Your task to perform on an android device: When is my next appointment? Image 0: 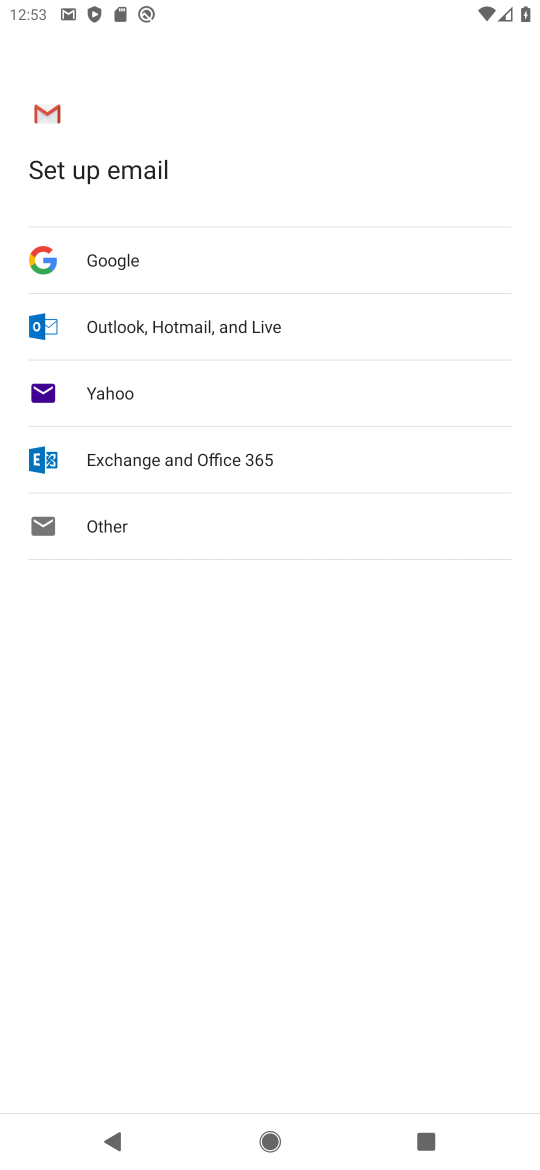
Step 0: press home button
Your task to perform on an android device: When is my next appointment? Image 1: 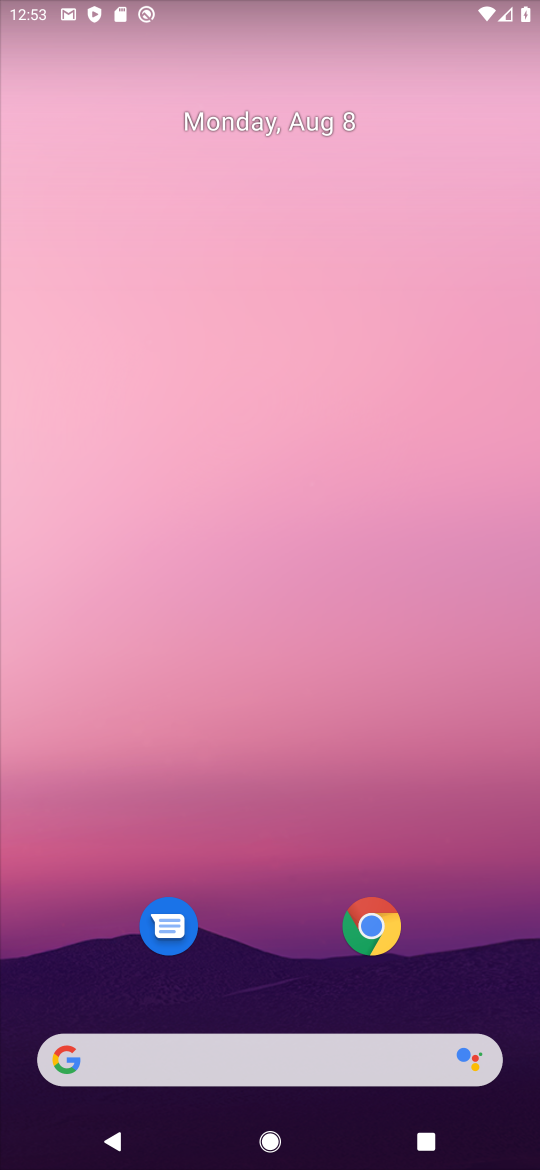
Step 1: click (267, 406)
Your task to perform on an android device: When is my next appointment? Image 2: 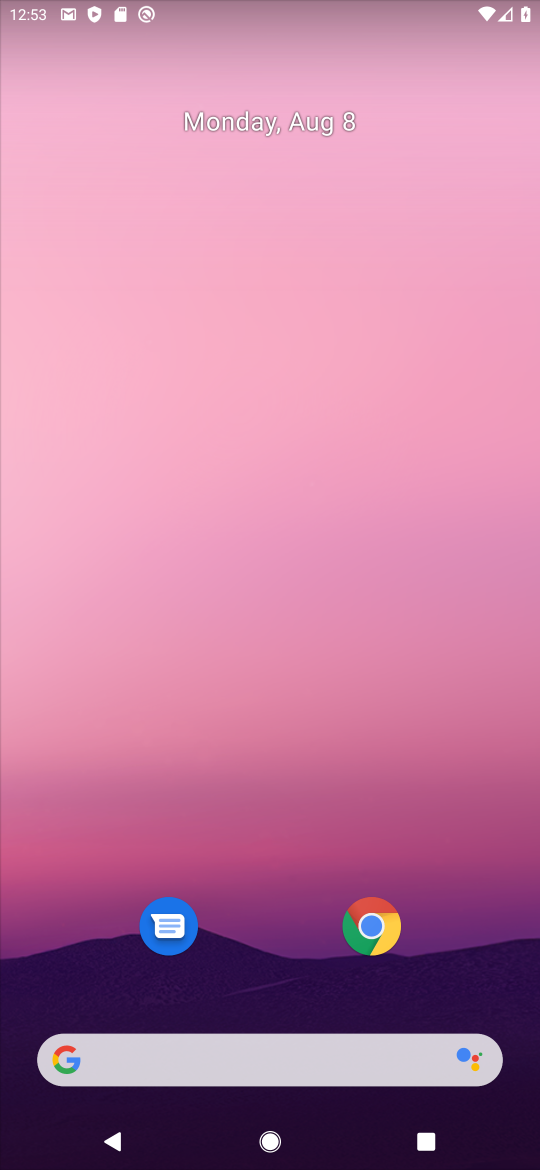
Step 2: click (283, 759)
Your task to perform on an android device: When is my next appointment? Image 3: 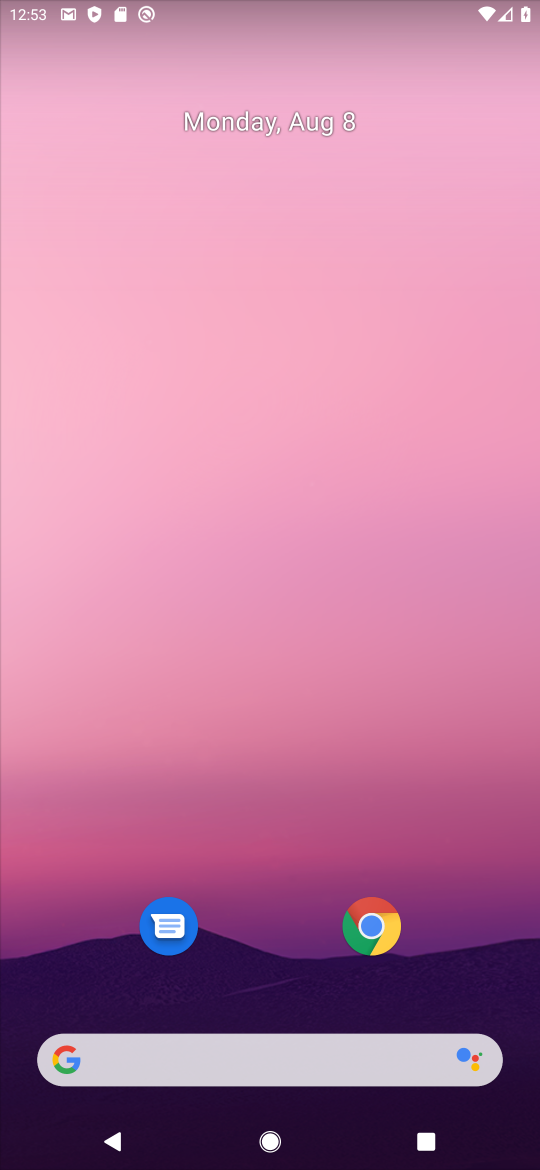
Step 3: drag from (252, 1073) to (229, 903)
Your task to perform on an android device: When is my next appointment? Image 4: 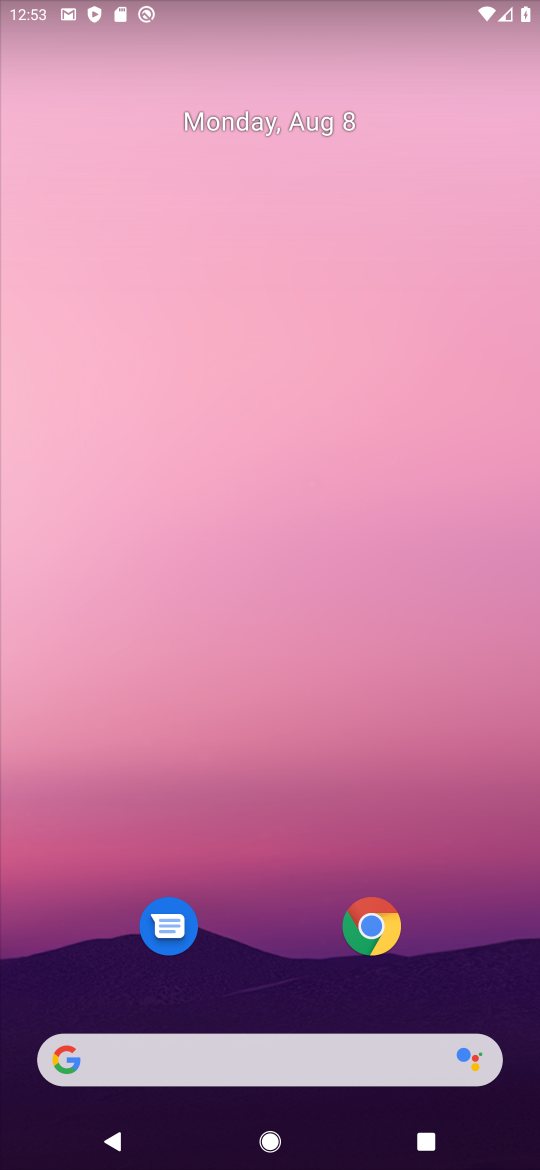
Step 4: drag from (245, 795) to (373, 70)
Your task to perform on an android device: When is my next appointment? Image 5: 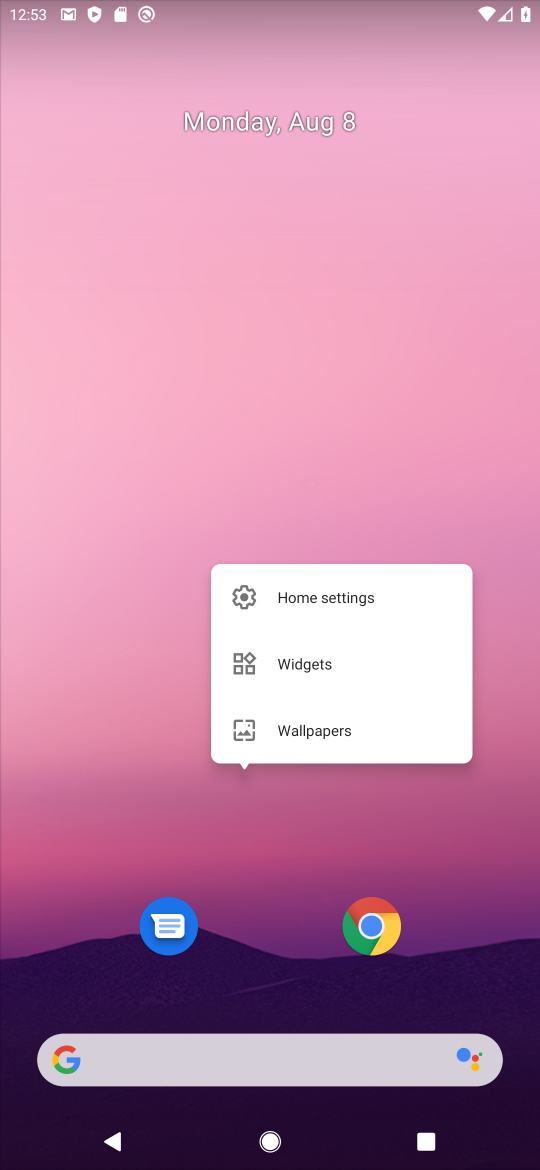
Step 5: click (275, 920)
Your task to perform on an android device: When is my next appointment? Image 6: 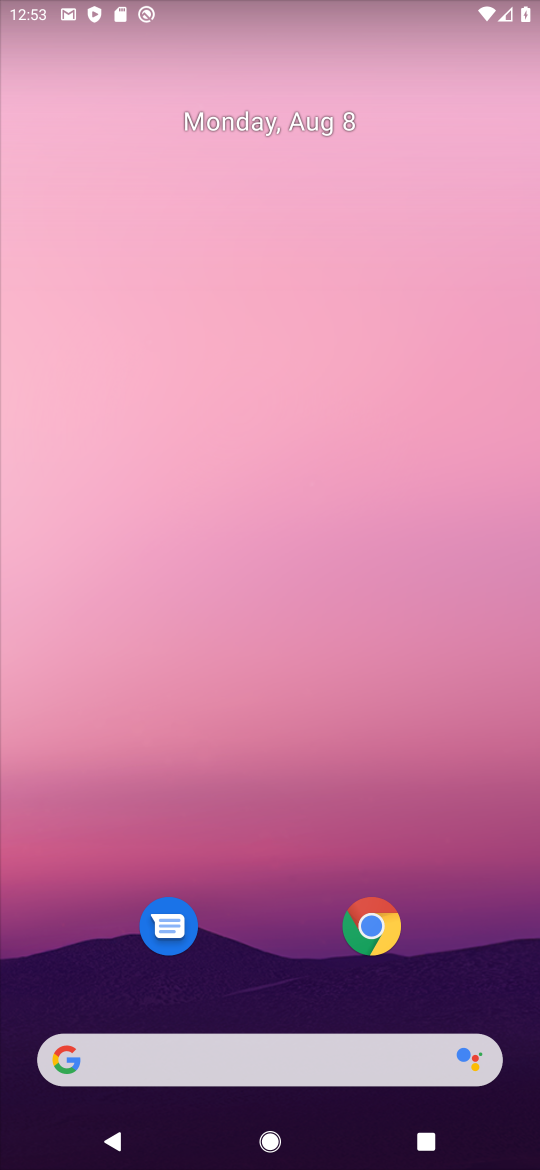
Step 6: drag from (303, 802) to (358, 6)
Your task to perform on an android device: When is my next appointment? Image 7: 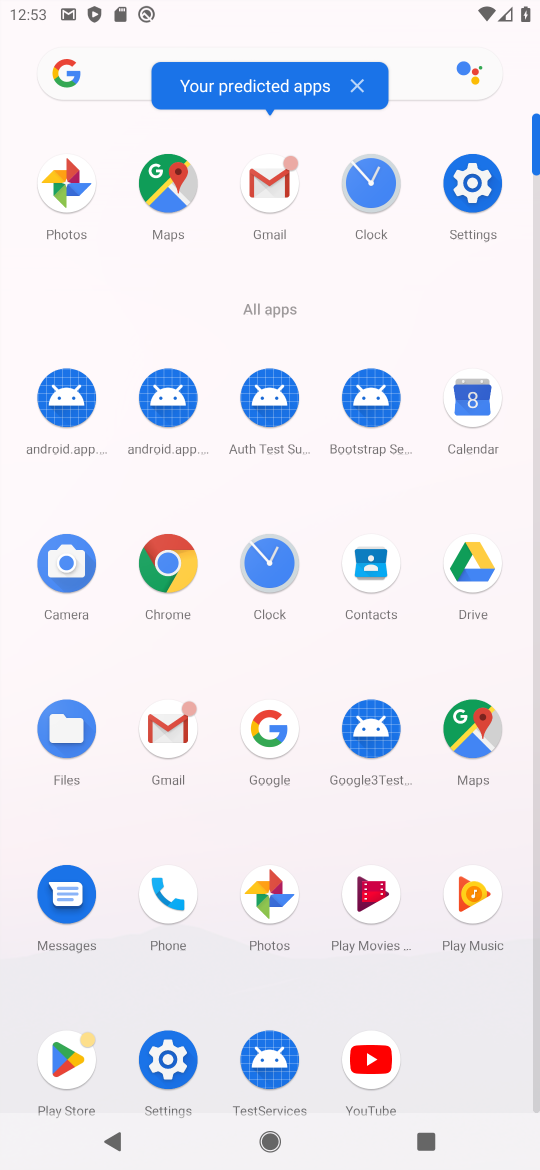
Step 7: click (484, 389)
Your task to perform on an android device: When is my next appointment? Image 8: 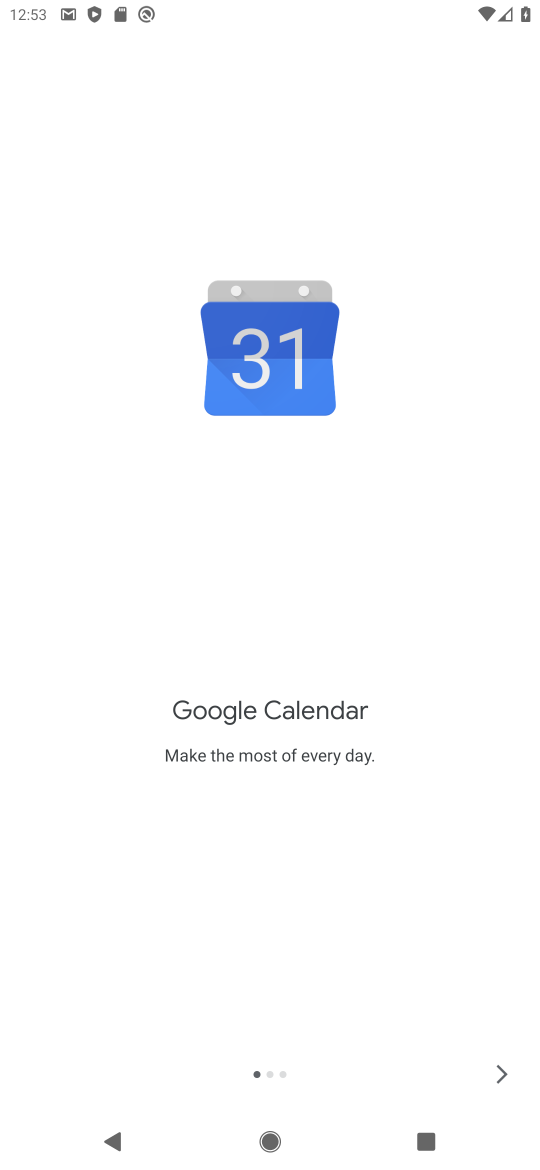
Step 8: click (493, 1051)
Your task to perform on an android device: When is my next appointment? Image 9: 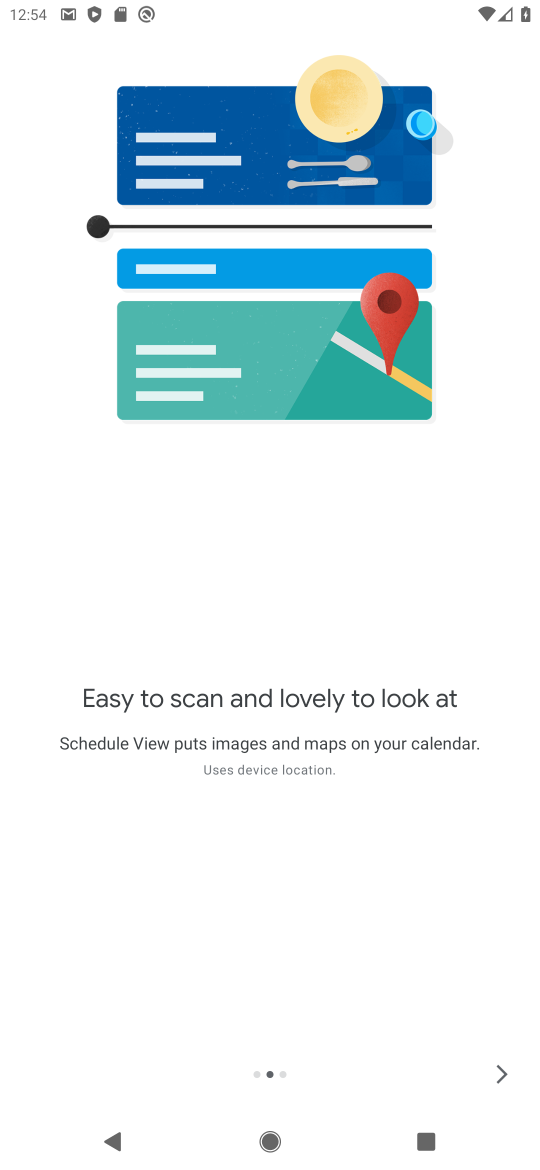
Step 9: click (499, 1057)
Your task to perform on an android device: When is my next appointment? Image 10: 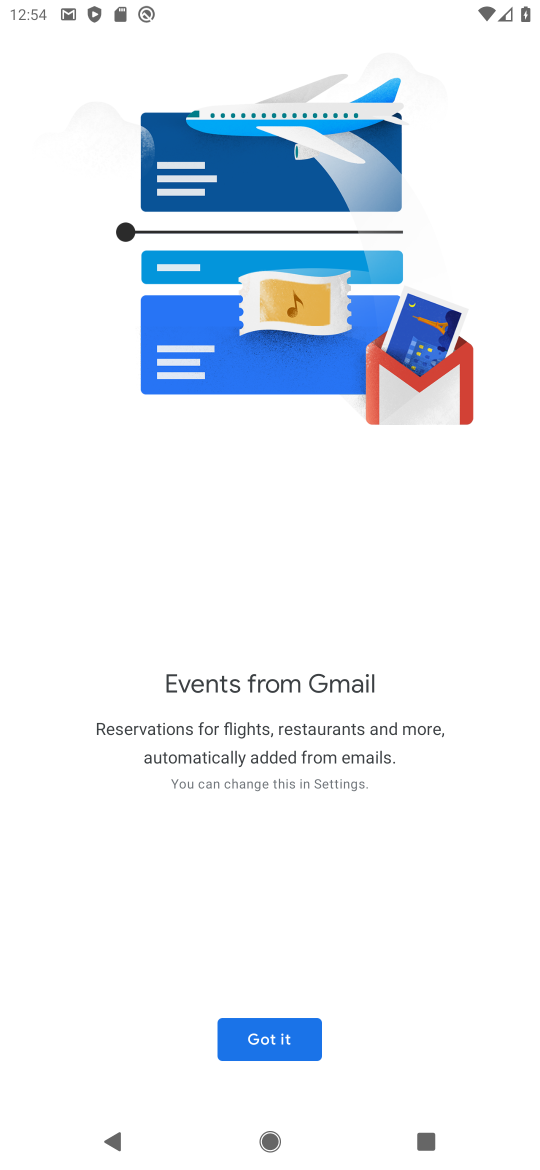
Step 10: click (295, 1038)
Your task to perform on an android device: When is my next appointment? Image 11: 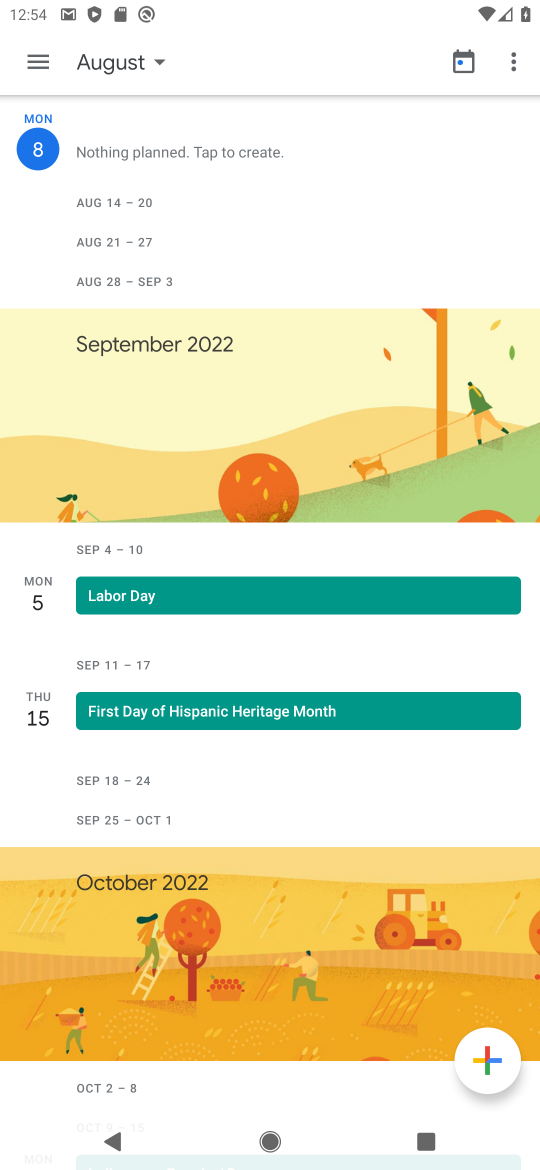
Step 11: task complete